Your task to perform on an android device: open app "YouTube Kids" (install if not already installed) and go to login screen Image 0: 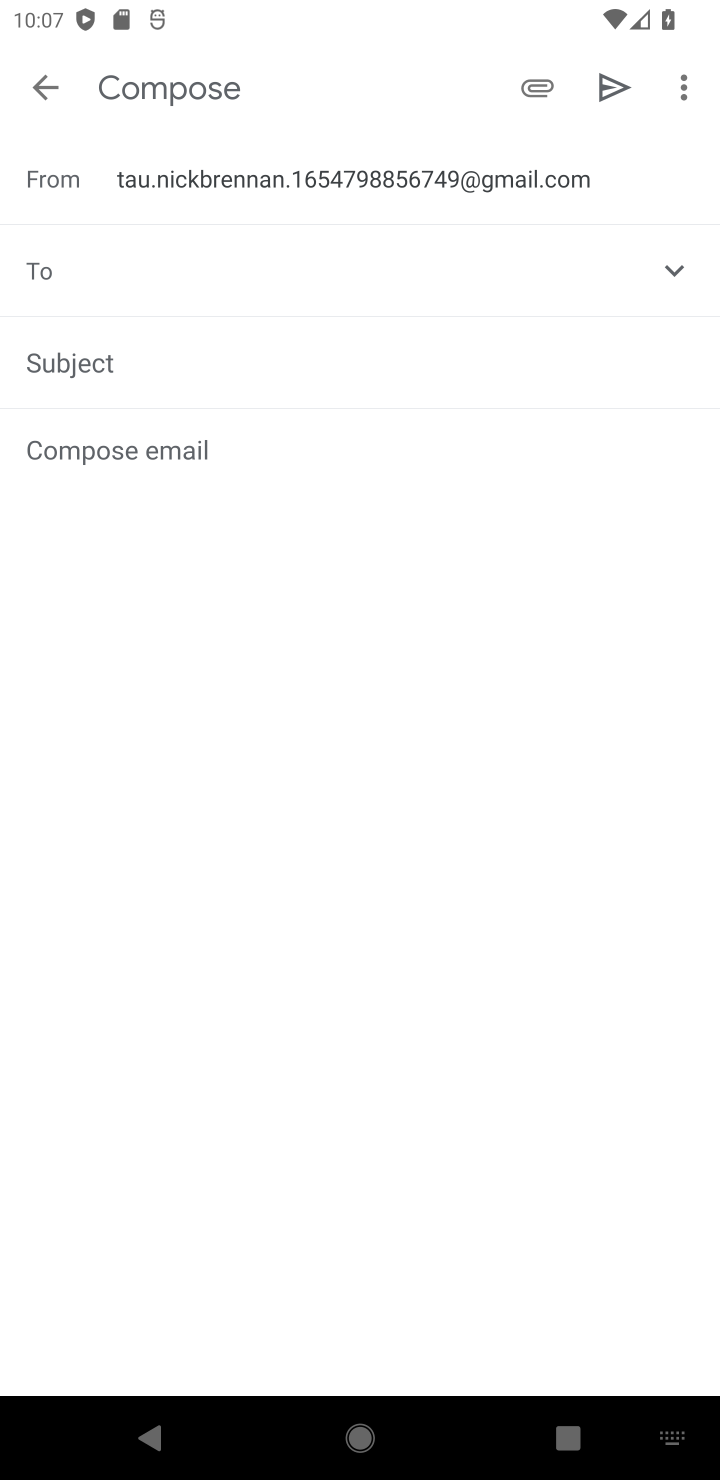
Step 0: task complete